Your task to perform on an android device: check google app version Image 0: 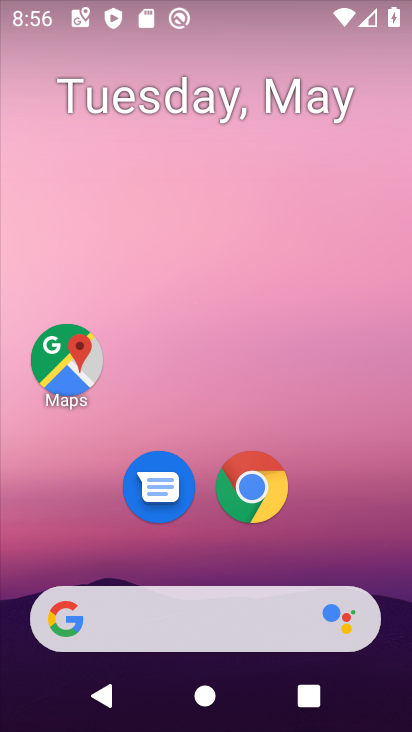
Step 0: drag from (357, 544) to (368, 173)
Your task to perform on an android device: check google app version Image 1: 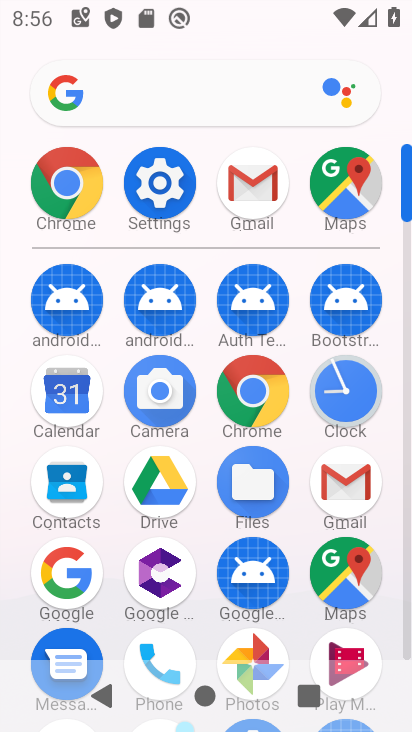
Step 1: click (77, 579)
Your task to perform on an android device: check google app version Image 2: 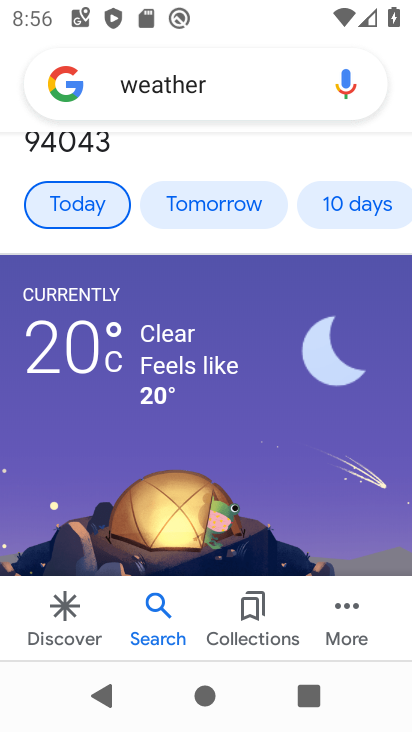
Step 2: click (350, 622)
Your task to perform on an android device: check google app version Image 3: 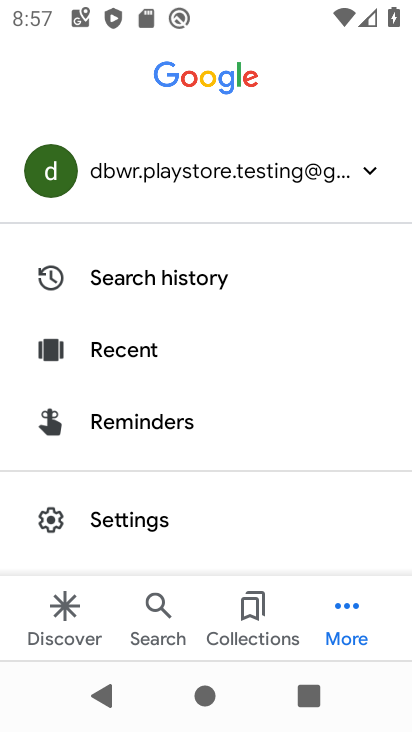
Step 3: click (190, 522)
Your task to perform on an android device: check google app version Image 4: 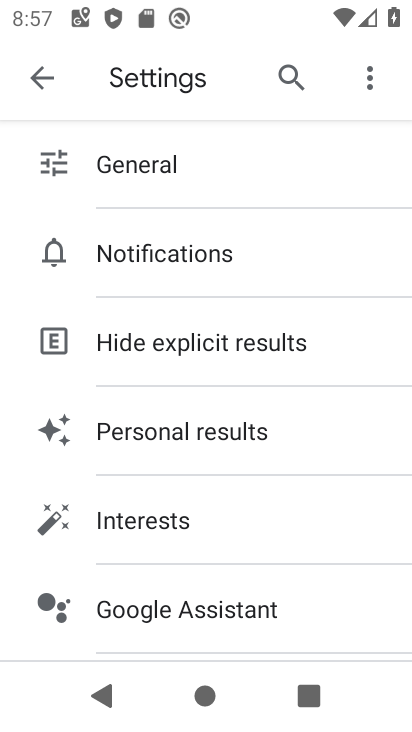
Step 4: drag from (336, 472) to (341, 369)
Your task to perform on an android device: check google app version Image 5: 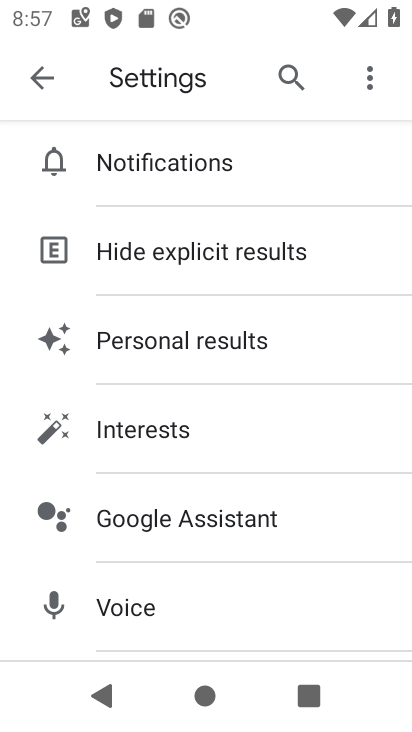
Step 5: drag from (355, 538) to (351, 430)
Your task to perform on an android device: check google app version Image 6: 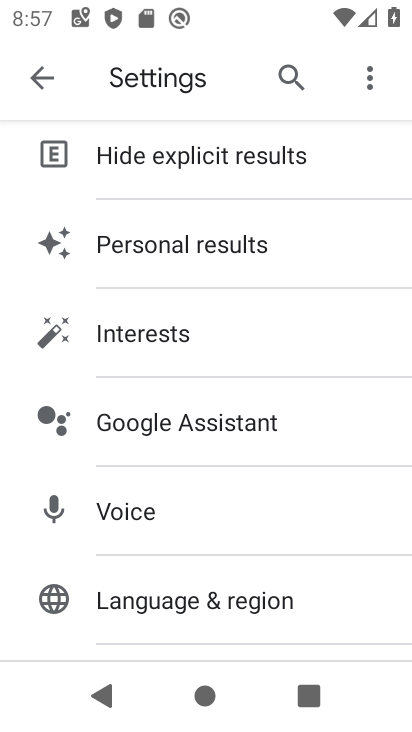
Step 6: drag from (343, 546) to (350, 413)
Your task to perform on an android device: check google app version Image 7: 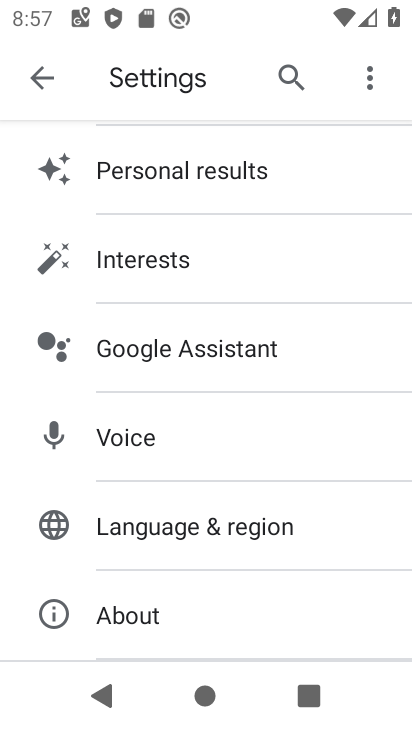
Step 7: click (224, 611)
Your task to perform on an android device: check google app version Image 8: 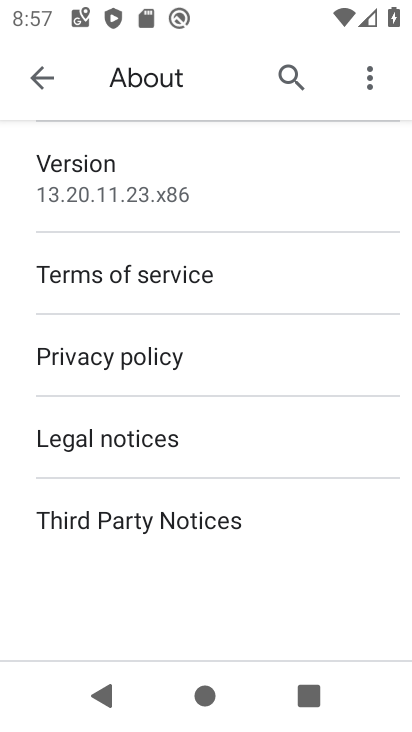
Step 8: task complete